Your task to perform on an android device: Search for Italian restaurants on Maps Image 0: 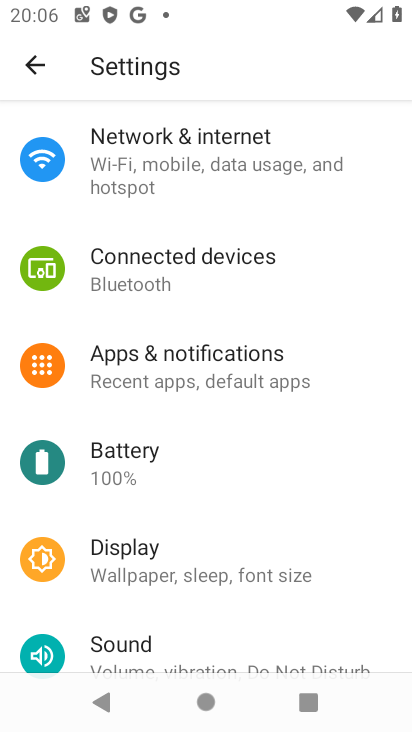
Step 0: press home button
Your task to perform on an android device: Search for Italian restaurants on Maps Image 1: 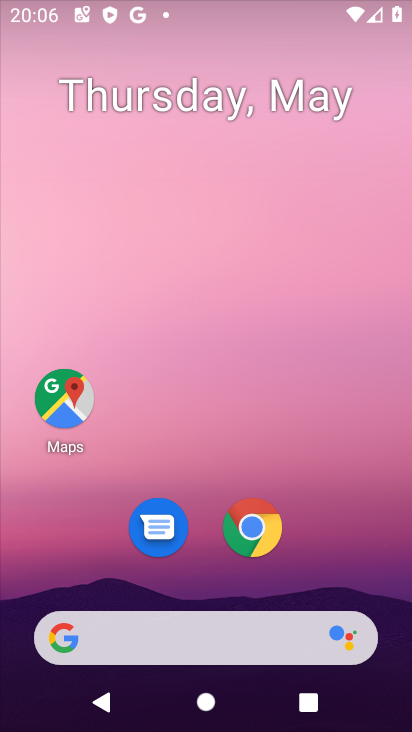
Step 1: click (48, 395)
Your task to perform on an android device: Search for Italian restaurants on Maps Image 2: 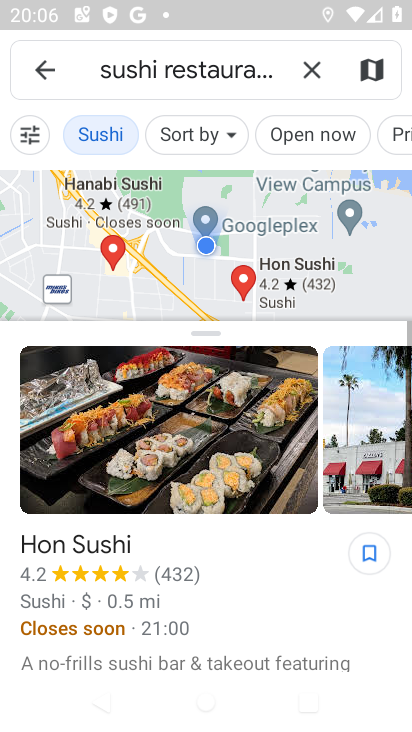
Step 2: click (311, 67)
Your task to perform on an android device: Search for Italian restaurants on Maps Image 3: 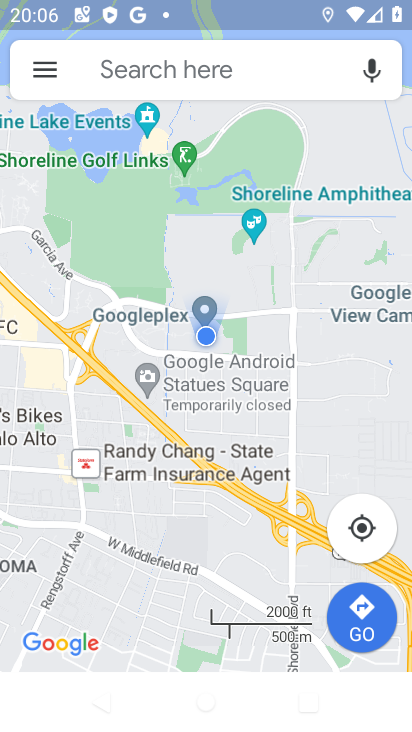
Step 3: click (238, 76)
Your task to perform on an android device: Search for Italian restaurants on Maps Image 4: 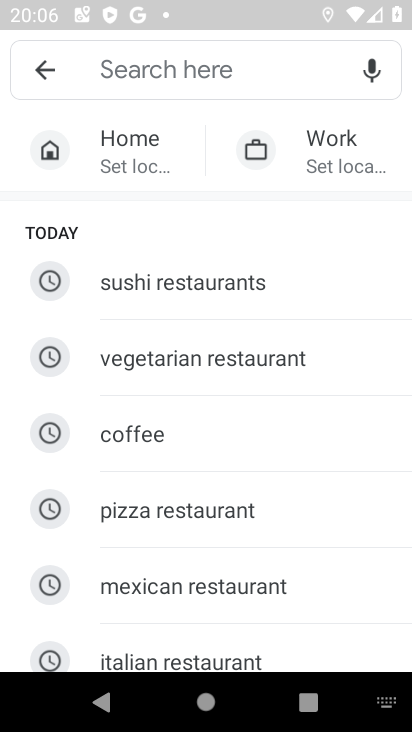
Step 4: click (124, 656)
Your task to perform on an android device: Search for Italian restaurants on Maps Image 5: 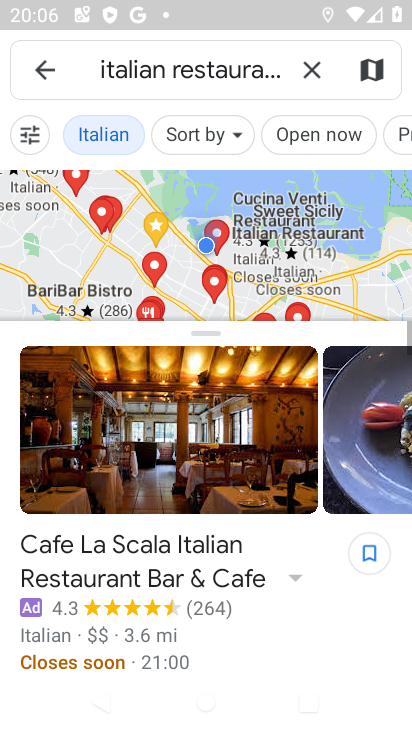
Step 5: task complete